Your task to perform on an android device: Search for apple airpods on costco.com, select the first entry, and add it to the cart. Image 0: 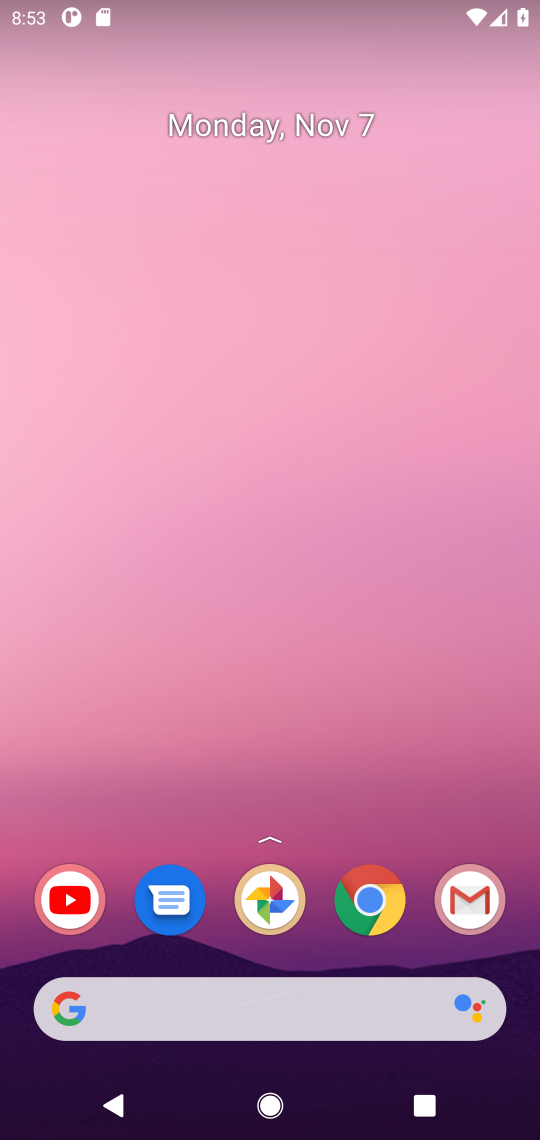
Step 0: drag from (278, 932) to (350, 373)
Your task to perform on an android device: Search for apple airpods on costco.com, select the first entry, and add it to the cart. Image 1: 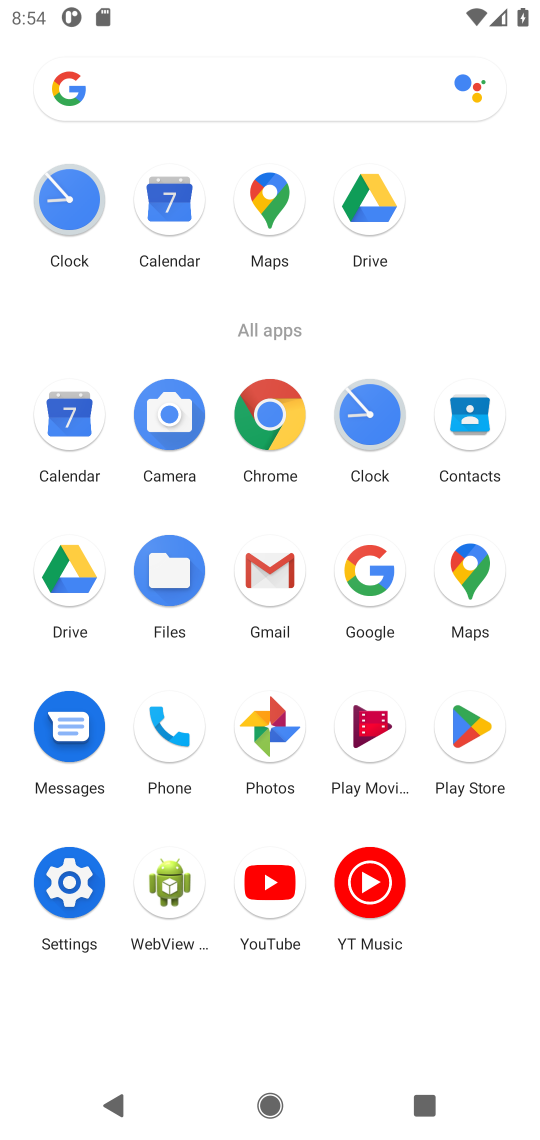
Step 1: click (378, 592)
Your task to perform on an android device: Search for apple airpods on costco.com, select the first entry, and add it to the cart. Image 2: 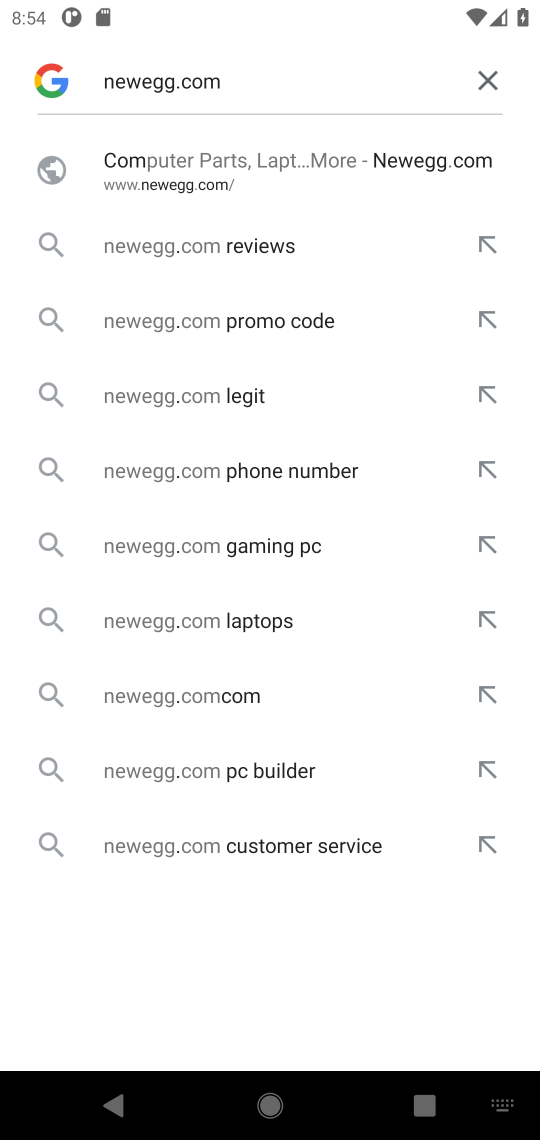
Step 2: click (486, 98)
Your task to perform on an android device: Search for apple airpods on costco.com, select the first entry, and add it to the cart. Image 3: 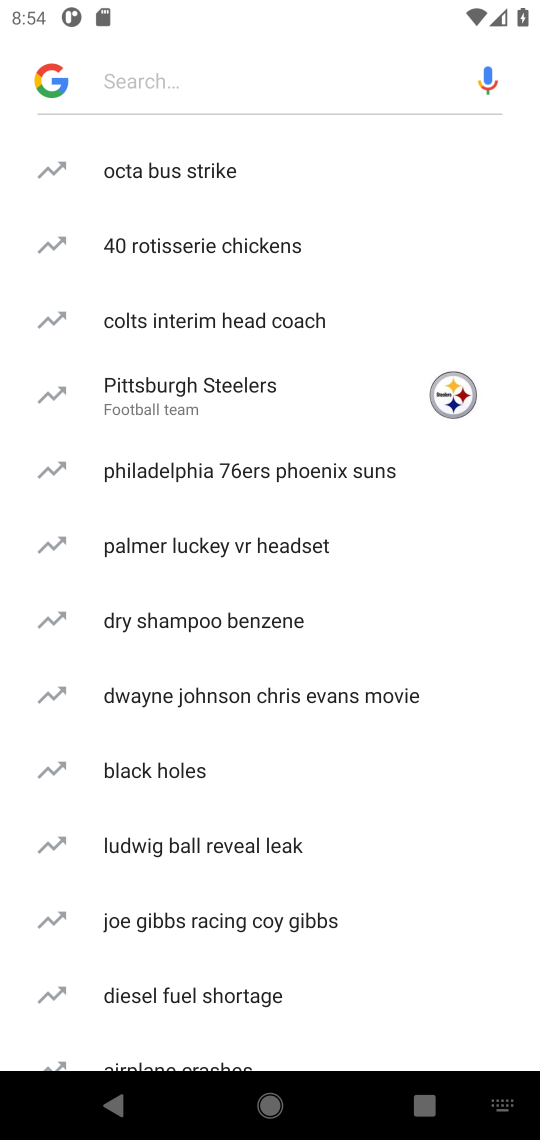
Step 3: type "costco.com"
Your task to perform on an android device: Search for apple airpods on costco.com, select the first entry, and add it to the cart. Image 4: 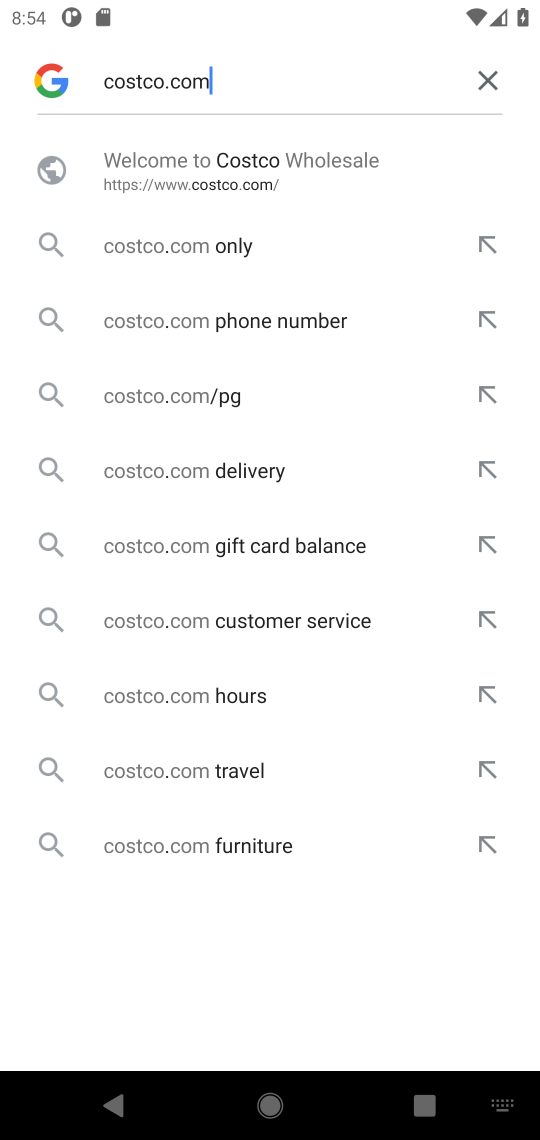
Step 4: click (303, 175)
Your task to perform on an android device: Search for apple airpods on costco.com, select the first entry, and add it to the cart. Image 5: 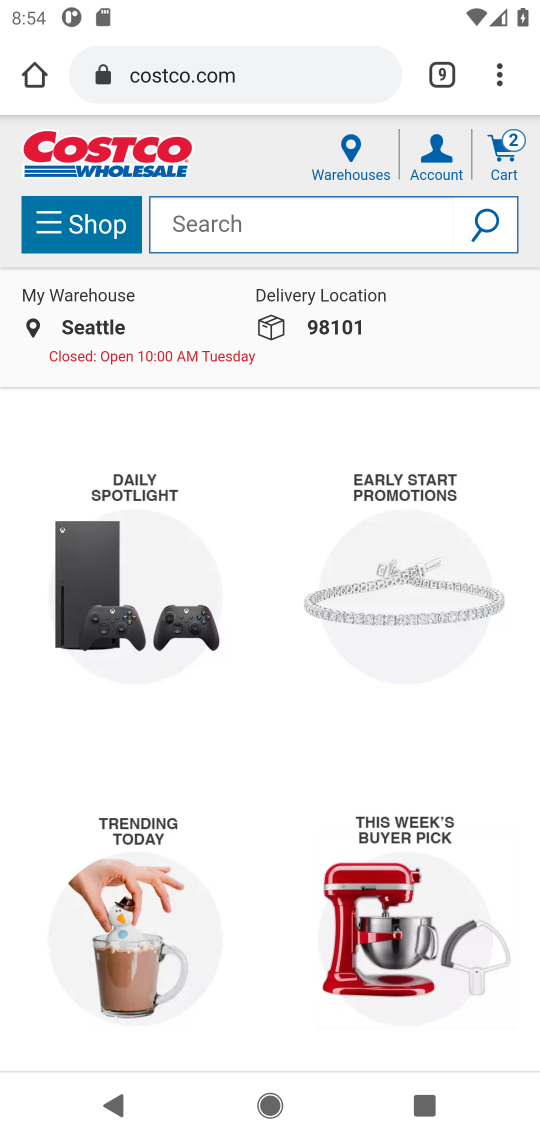
Step 5: click (314, 244)
Your task to perform on an android device: Search for apple airpods on costco.com, select the first entry, and add it to the cart. Image 6: 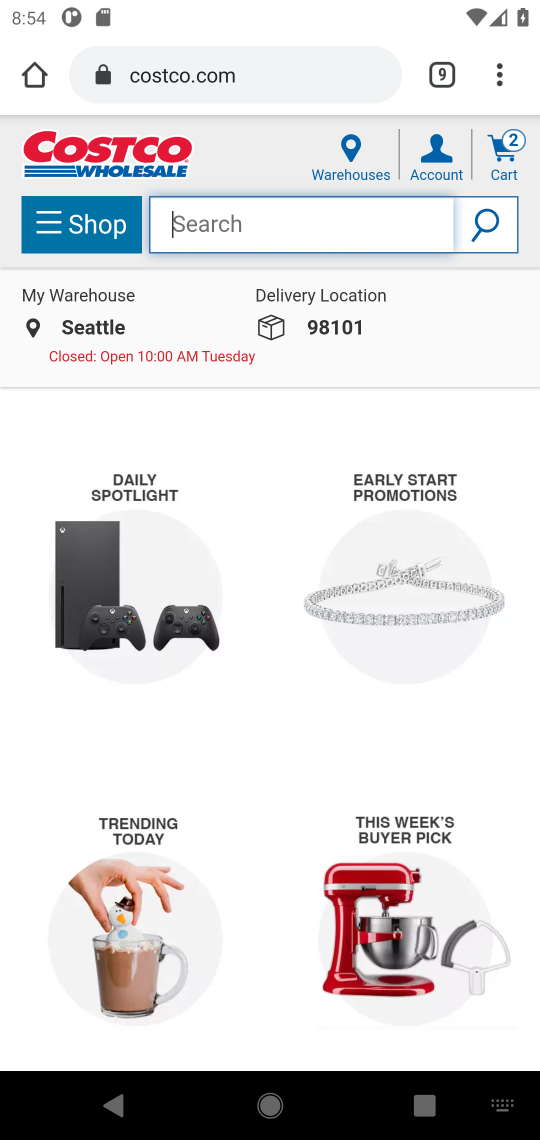
Step 6: type "apple airpods"
Your task to perform on an android device: Search for apple airpods on costco.com, select the first entry, and add it to the cart. Image 7: 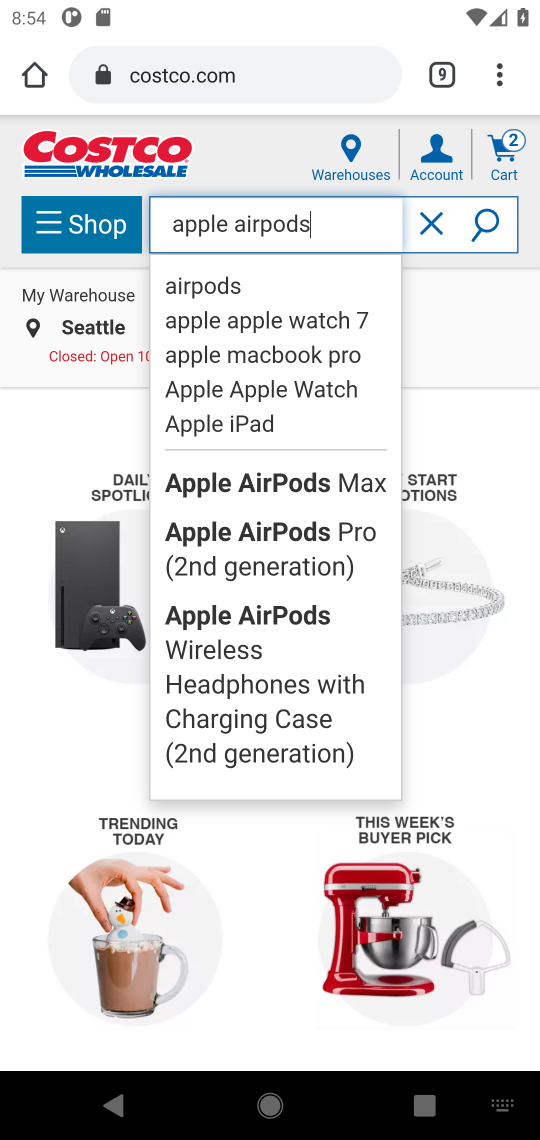
Step 7: click (265, 287)
Your task to perform on an android device: Search for apple airpods on costco.com, select the first entry, and add it to the cart. Image 8: 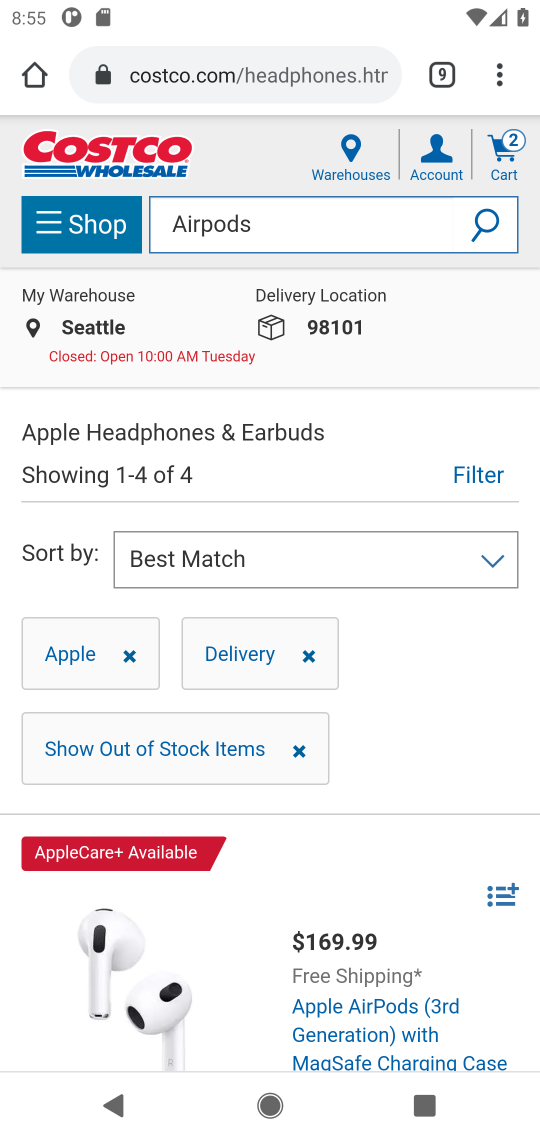
Step 8: click (343, 1023)
Your task to perform on an android device: Search for apple airpods on costco.com, select the first entry, and add it to the cart. Image 9: 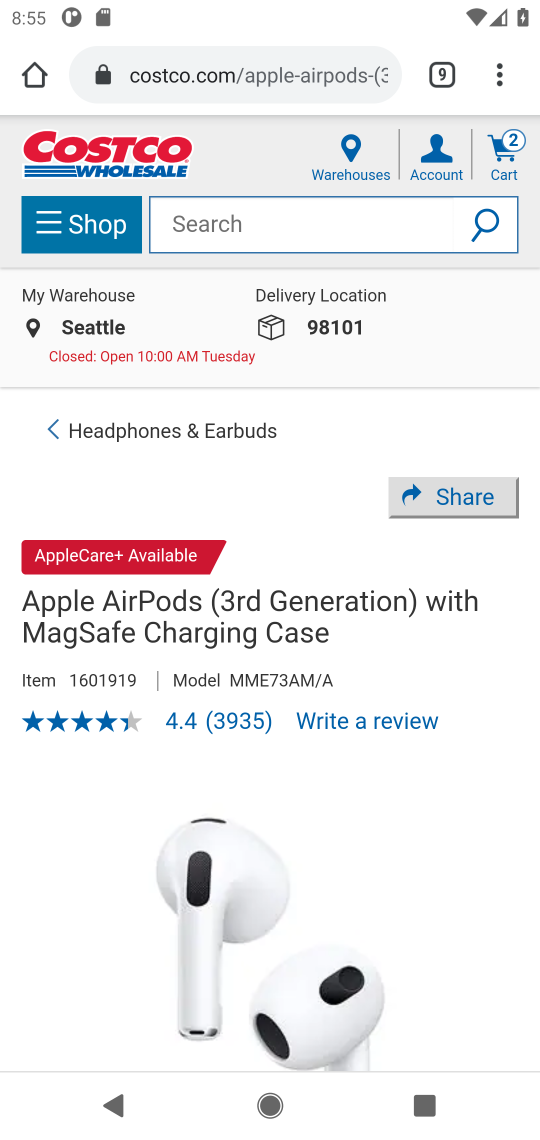
Step 9: drag from (246, 951) to (246, 580)
Your task to perform on an android device: Search for apple airpods on costco.com, select the first entry, and add it to the cart. Image 10: 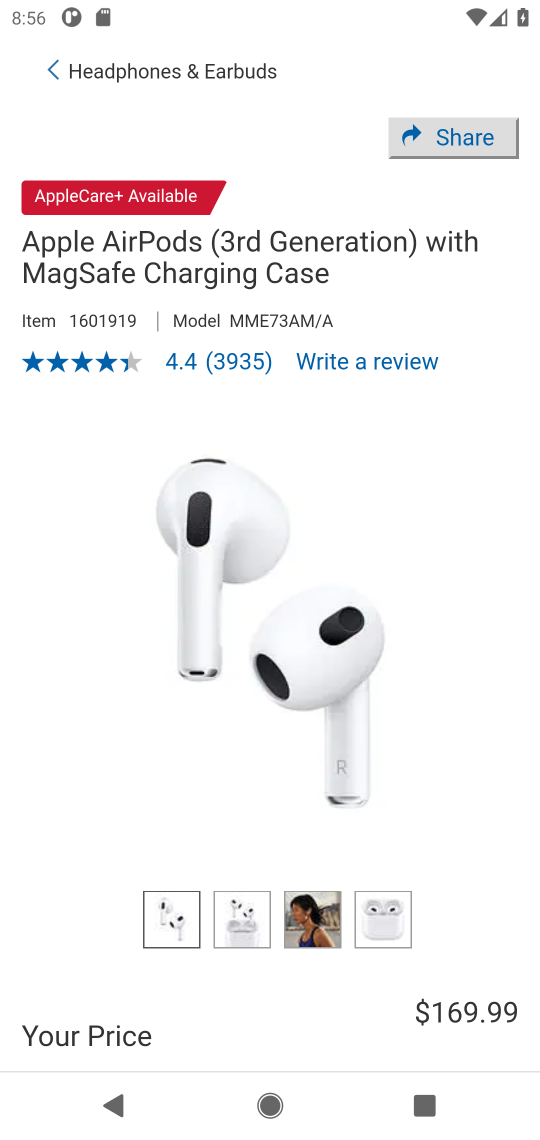
Step 10: drag from (347, 725) to (344, 412)
Your task to perform on an android device: Search for apple airpods on costco.com, select the first entry, and add it to the cart. Image 11: 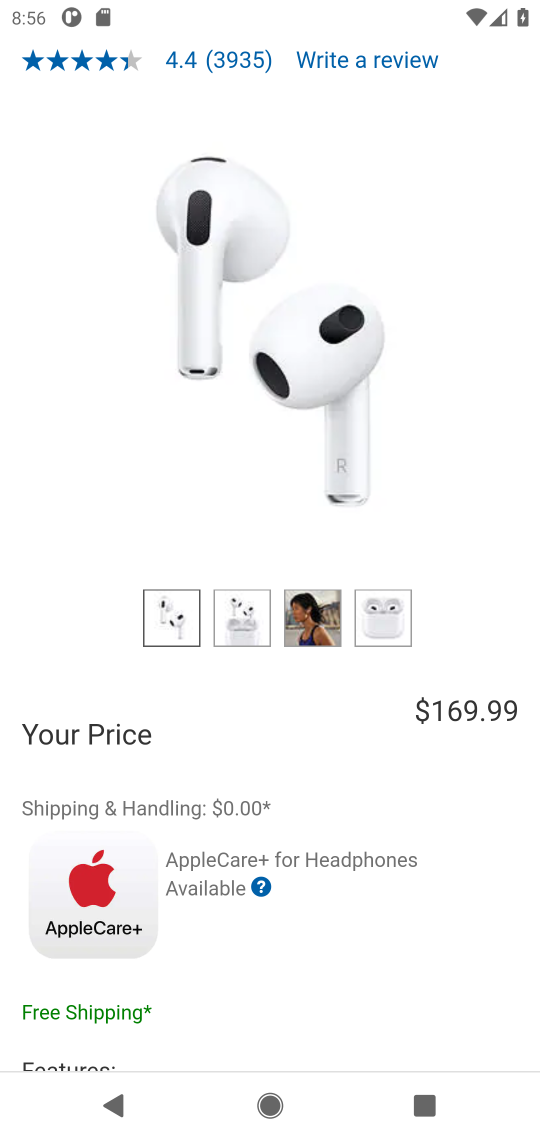
Step 11: drag from (333, 814) to (306, 270)
Your task to perform on an android device: Search for apple airpods on costco.com, select the first entry, and add it to the cart. Image 12: 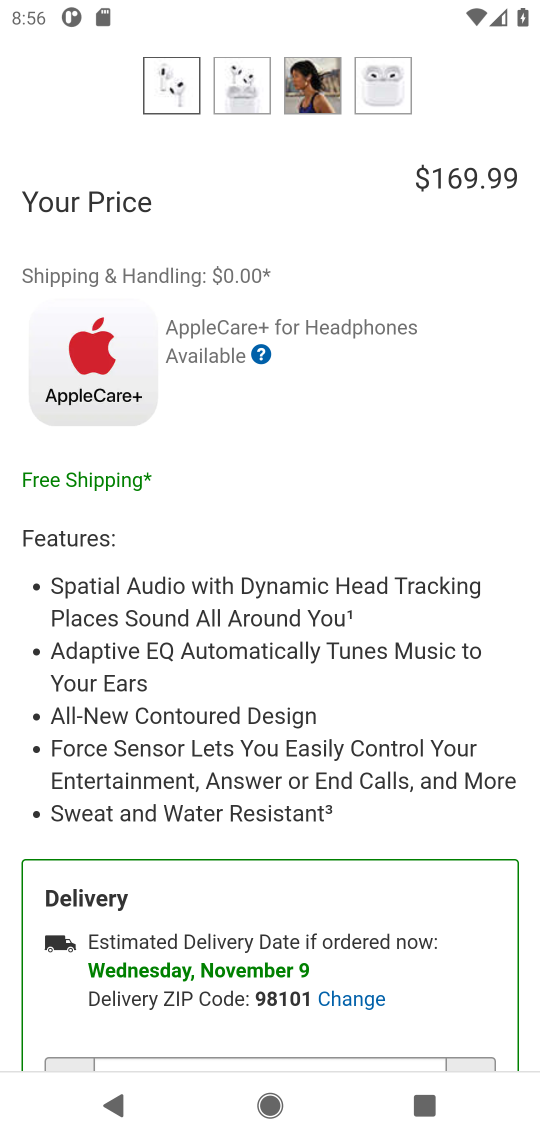
Step 12: drag from (282, 881) to (358, 1043)
Your task to perform on an android device: Search for apple airpods on costco.com, select the first entry, and add it to the cart. Image 13: 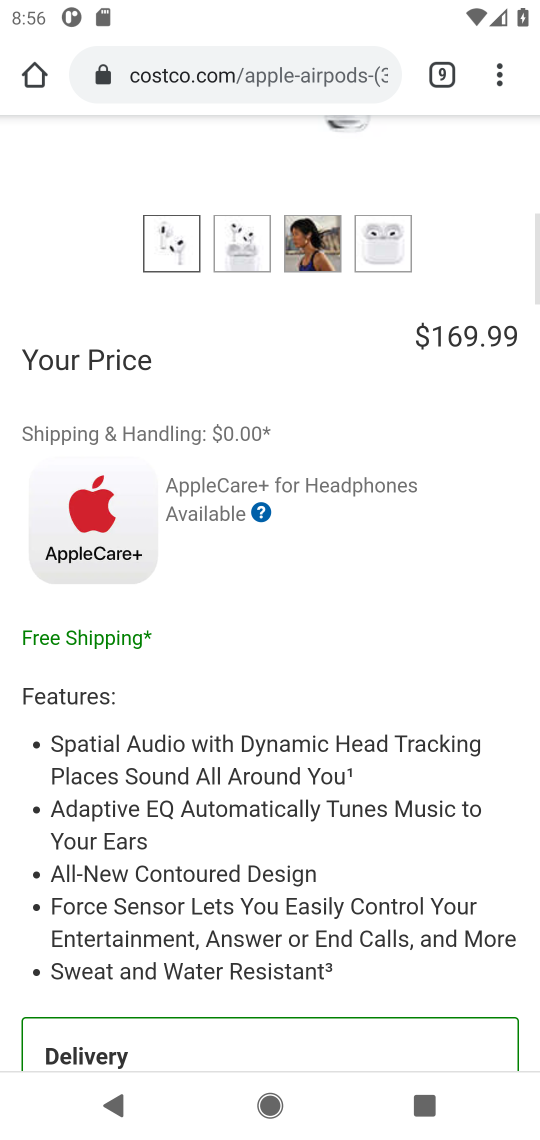
Step 13: click (101, 936)
Your task to perform on an android device: Search for apple airpods on costco.com, select the first entry, and add it to the cart. Image 14: 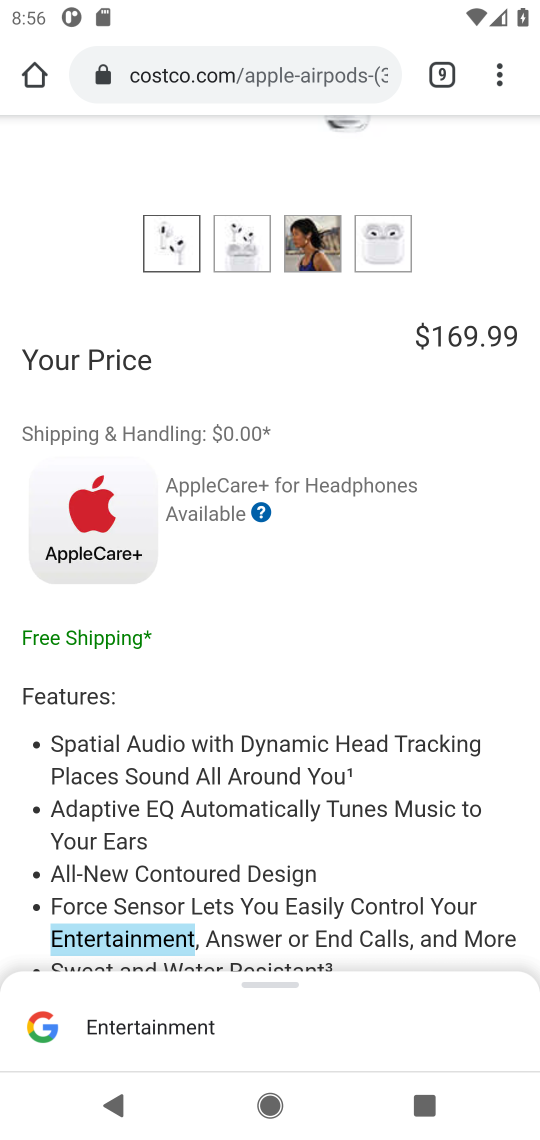
Step 14: task complete